Your task to perform on an android device: Show me recent news Image 0: 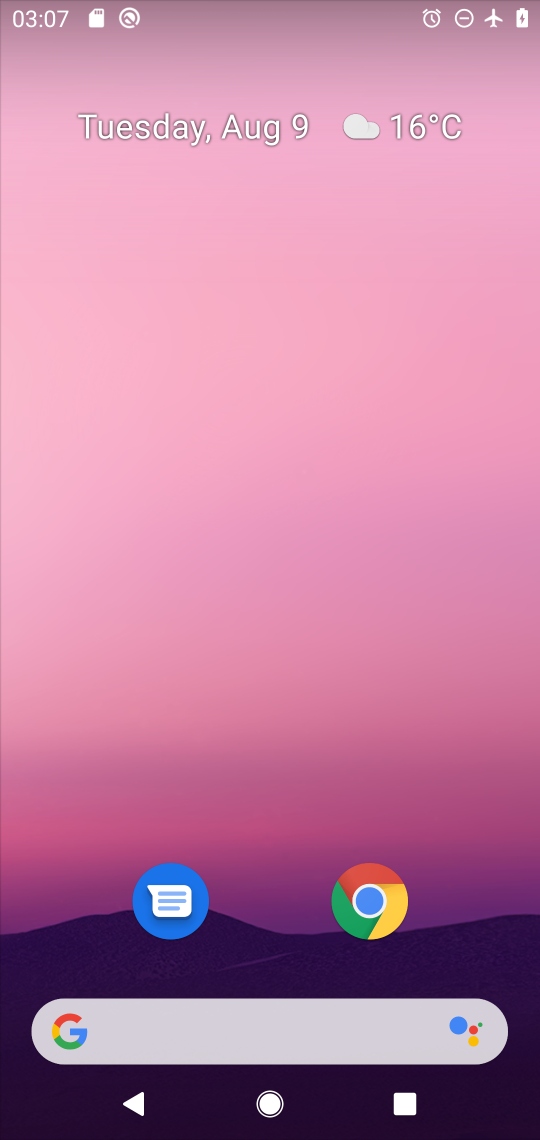
Step 0: drag from (8, 494) to (530, 509)
Your task to perform on an android device: Show me recent news Image 1: 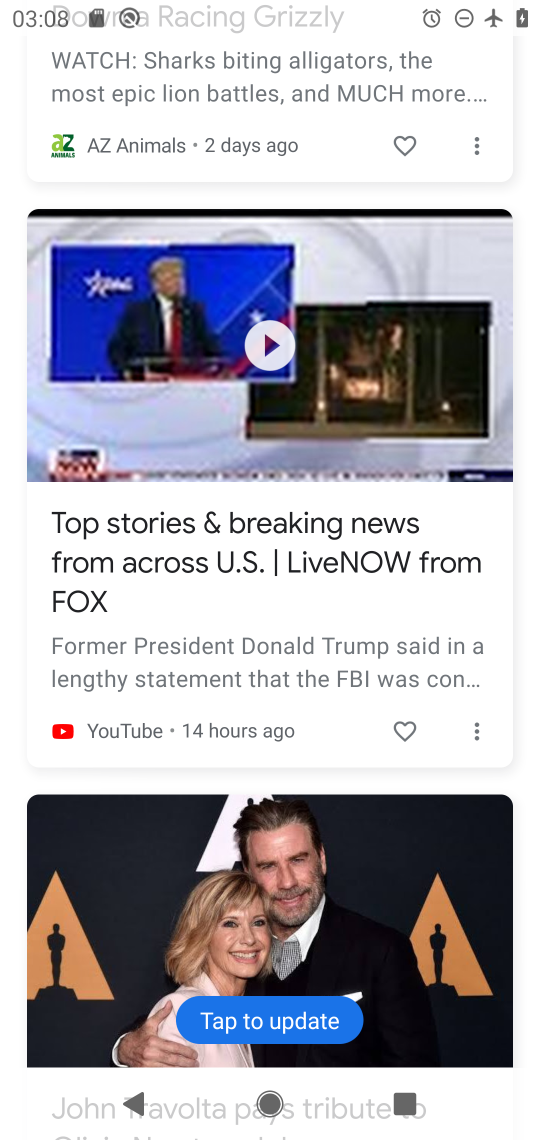
Step 1: click (265, 1021)
Your task to perform on an android device: Show me recent news Image 2: 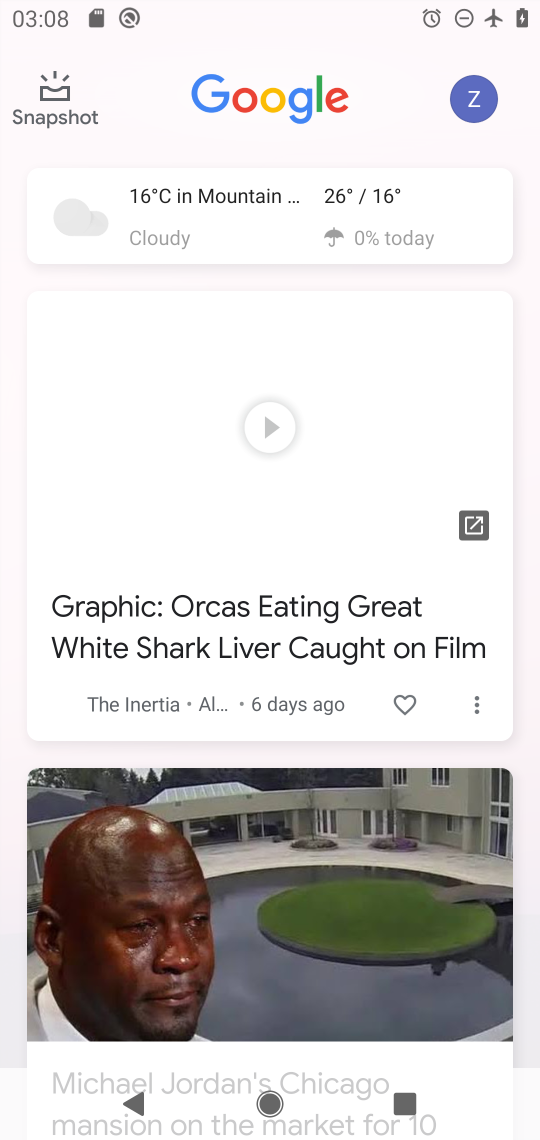
Step 2: task complete